Your task to perform on an android device: empty trash in the gmail app Image 0: 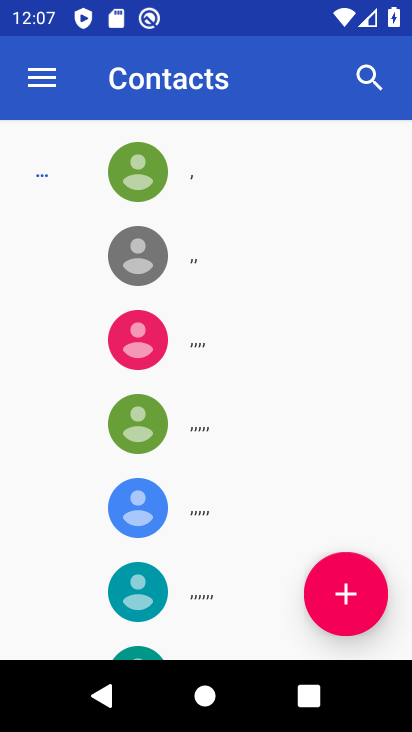
Step 0: press back button
Your task to perform on an android device: empty trash in the gmail app Image 1: 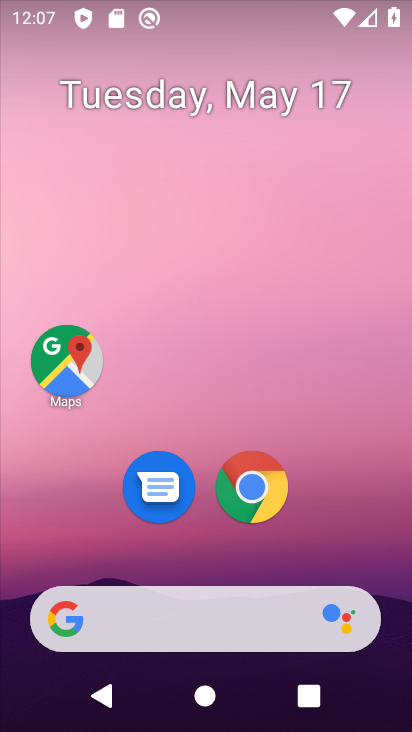
Step 1: drag from (331, 472) to (252, 5)
Your task to perform on an android device: empty trash in the gmail app Image 2: 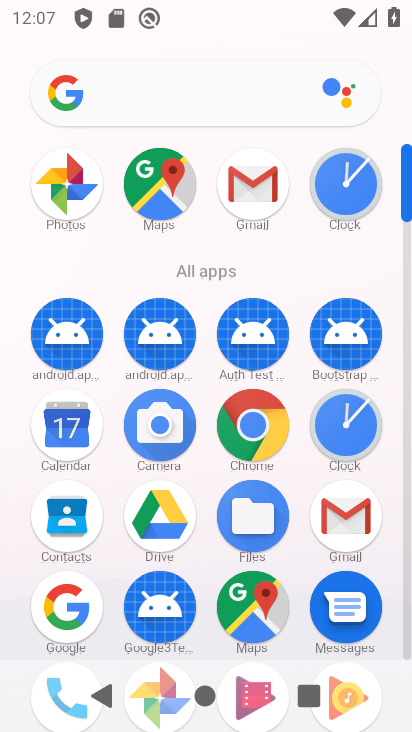
Step 2: click (347, 510)
Your task to perform on an android device: empty trash in the gmail app Image 3: 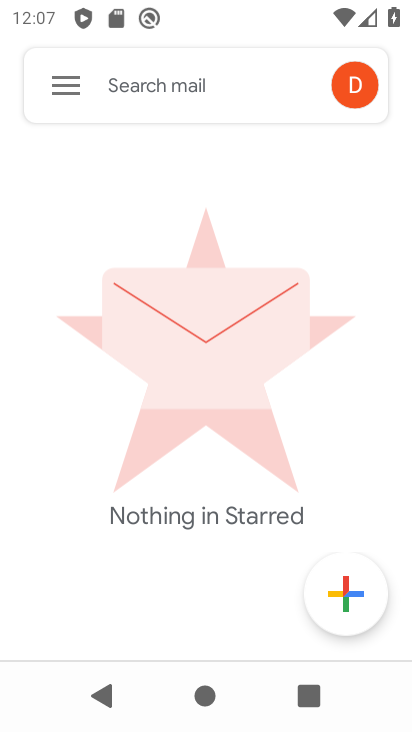
Step 3: click (67, 74)
Your task to perform on an android device: empty trash in the gmail app Image 4: 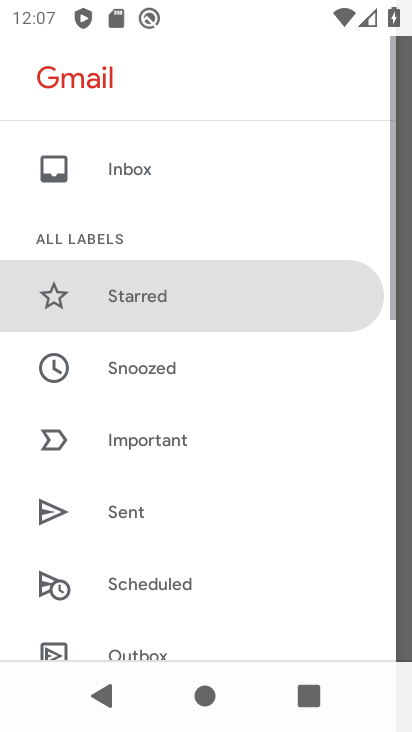
Step 4: drag from (211, 570) to (222, 147)
Your task to perform on an android device: empty trash in the gmail app Image 5: 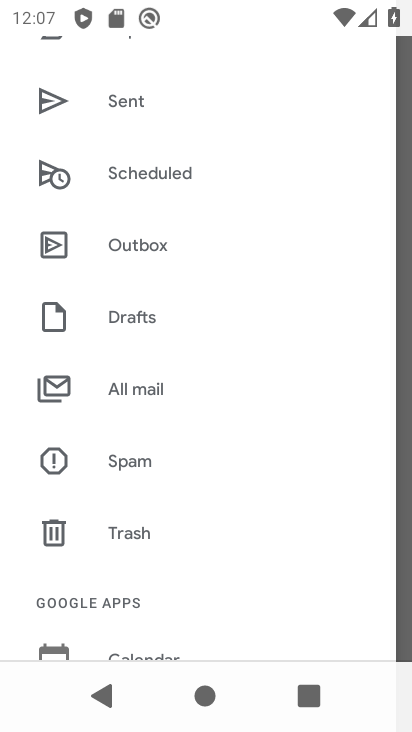
Step 5: drag from (224, 520) to (202, 185)
Your task to perform on an android device: empty trash in the gmail app Image 6: 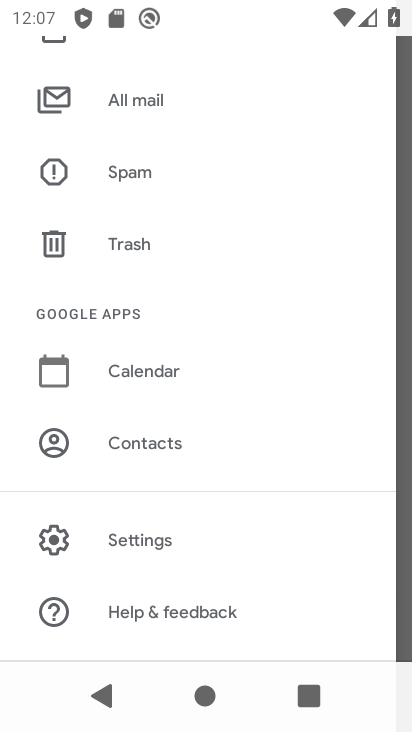
Step 6: drag from (178, 579) to (203, 196)
Your task to perform on an android device: empty trash in the gmail app Image 7: 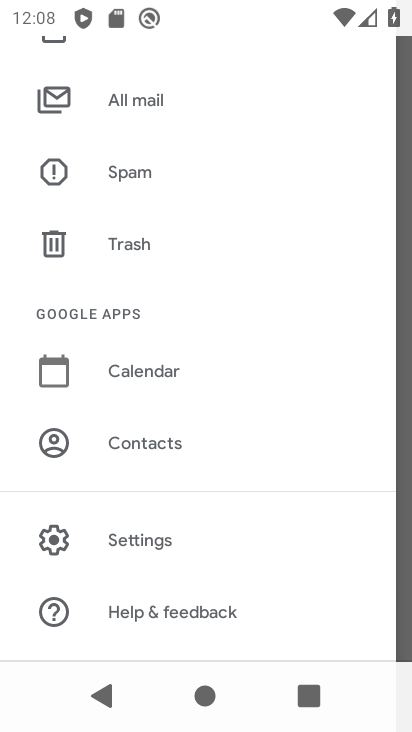
Step 7: click (165, 532)
Your task to perform on an android device: empty trash in the gmail app Image 8: 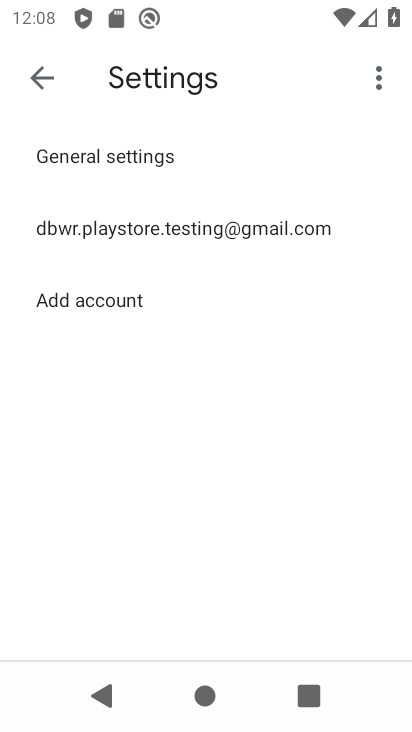
Step 8: click (176, 228)
Your task to perform on an android device: empty trash in the gmail app Image 9: 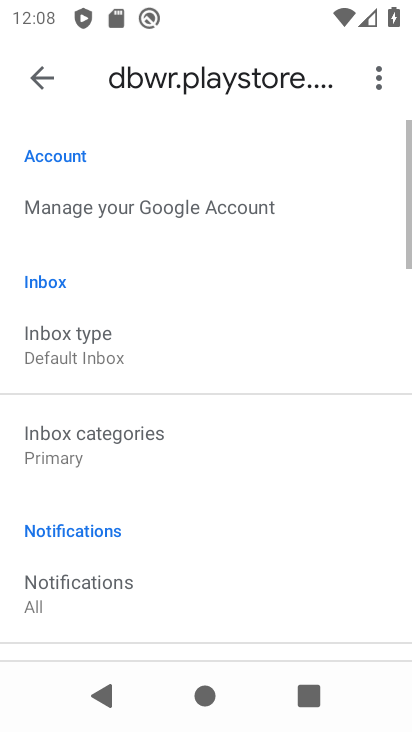
Step 9: drag from (223, 541) to (263, 195)
Your task to perform on an android device: empty trash in the gmail app Image 10: 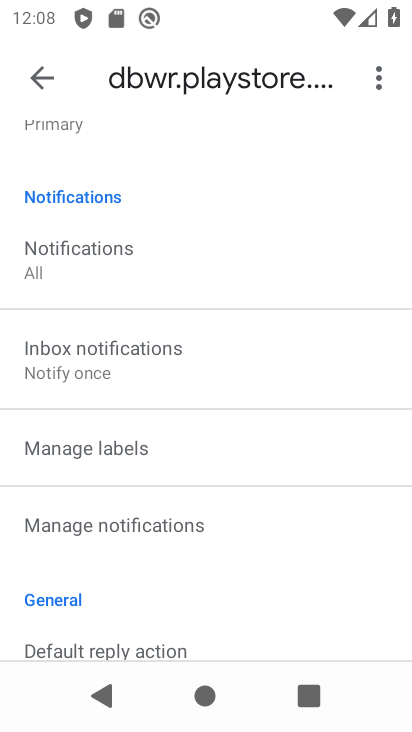
Step 10: drag from (233, 530) to (232, 154)
Your task to perform on an android device: empty trash in the gmail app Image 11: 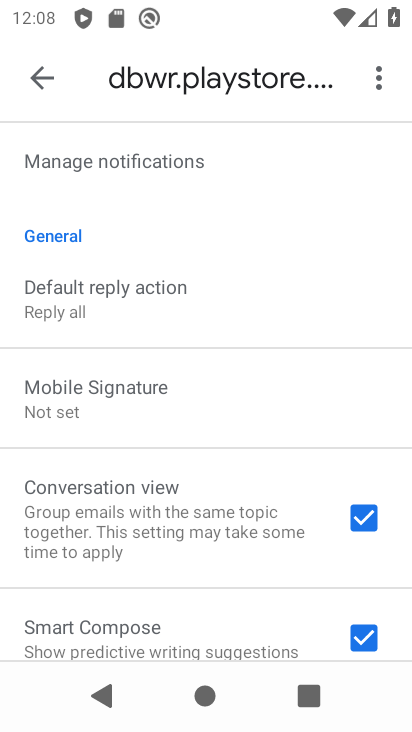
Step 11: drag from (245, 551) to (272, 180)
Your task to perform on an android device: empty trash in the gmail app Image 12: 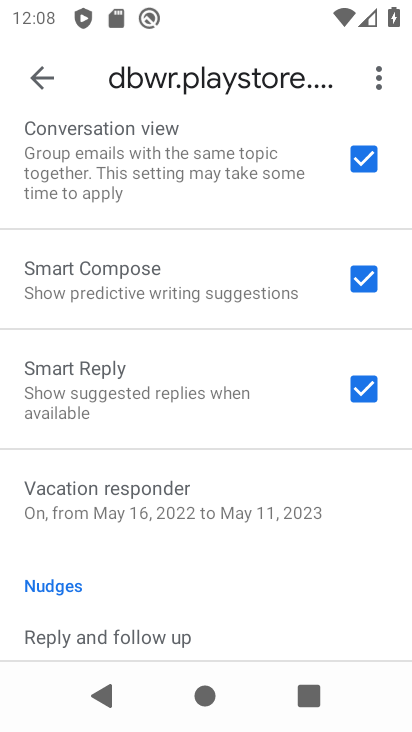
Step 12: drag from (216, 217) to (189, 564)
Your task to perform on an android device: empty trash in the gmail app Image 13: 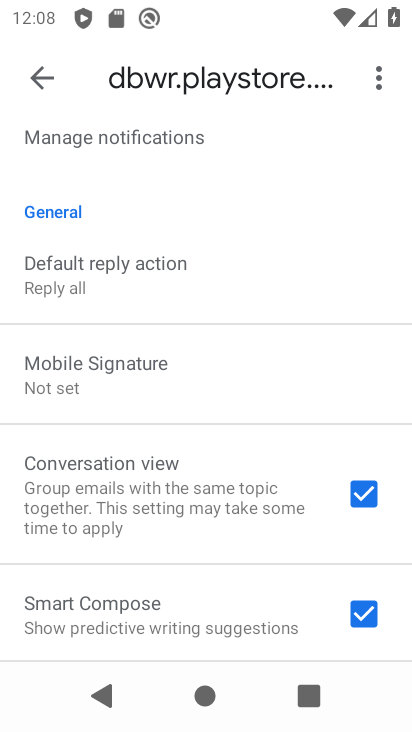
Step 13: drag from (190, 566) to (233, 129)
Your task to perform on an android device: empty trash in the gmail app Image 14: 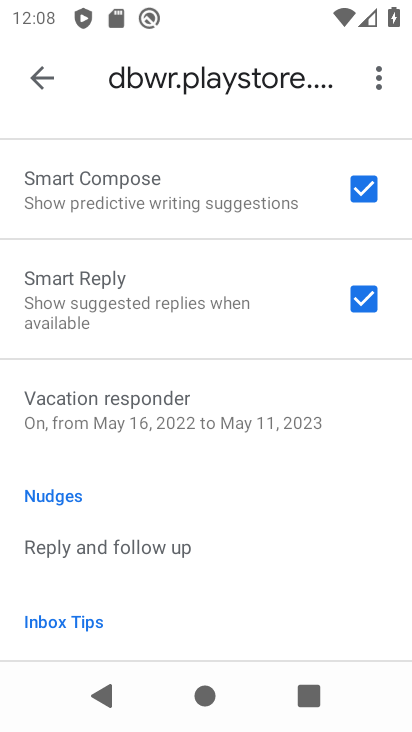
Step 14: click (26, 66)
Your task to perform on an android device: empty trash in the gmail app Image 15: 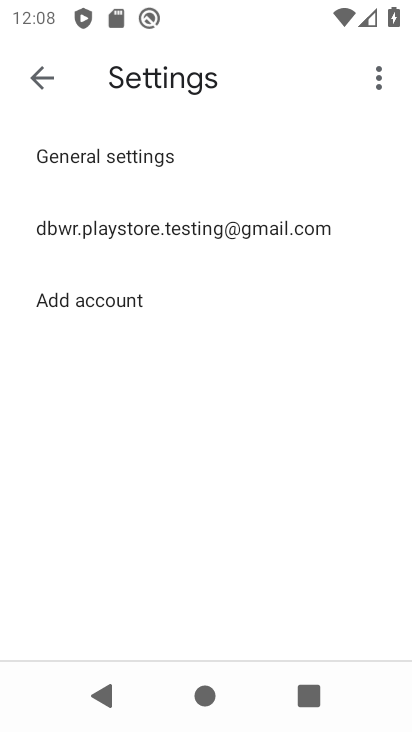
Step 15: click (26, 66)
Your task to perform on an android device: empty trash in the gmail app Image 16: 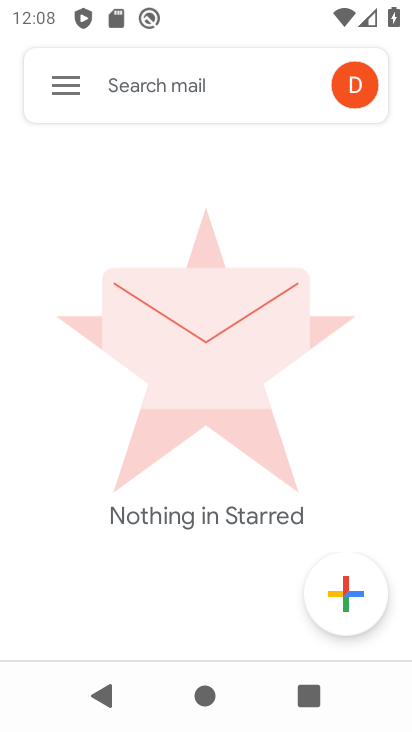
Step 16: click (63, 83)
Your task to perform on an android device: empty trash in the gmail app Image 17: 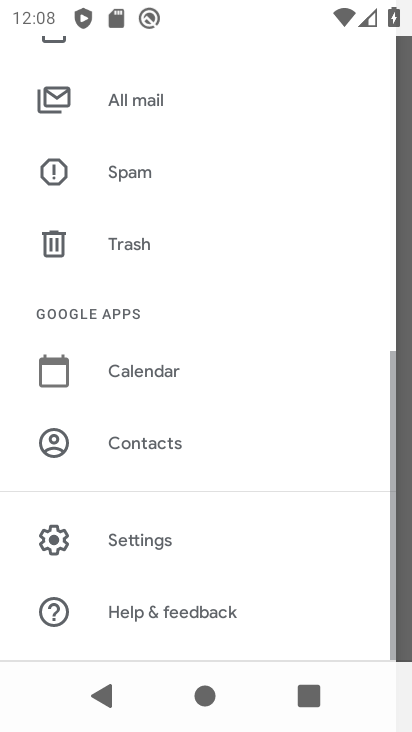
Step 17: drag from (197, 489) to (216, 335)
Your task to perform on an android device: empty trash in the gmail app Image 18: 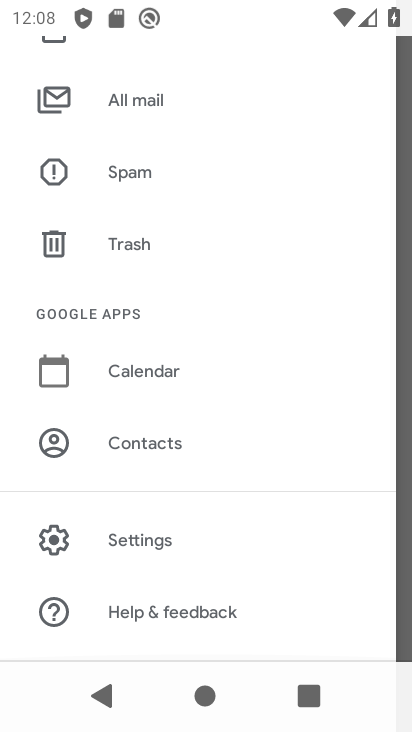
Step 18: click (145, 241)
Your task to perform on an android device: empty trash in the gmail app Image 19: 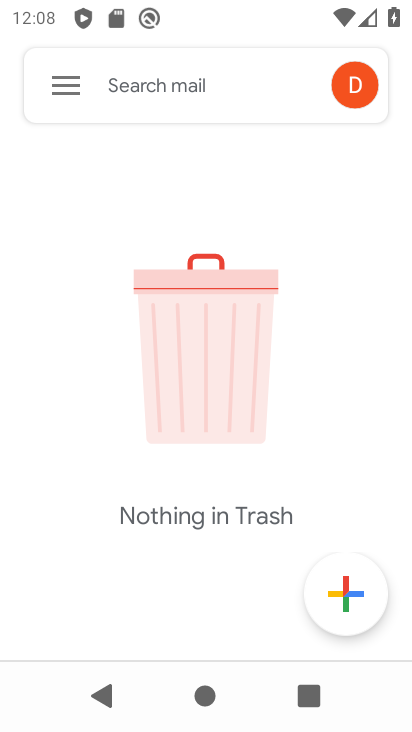
Step 19: task complete